Your task to perform on an android device: check storage Image 0: 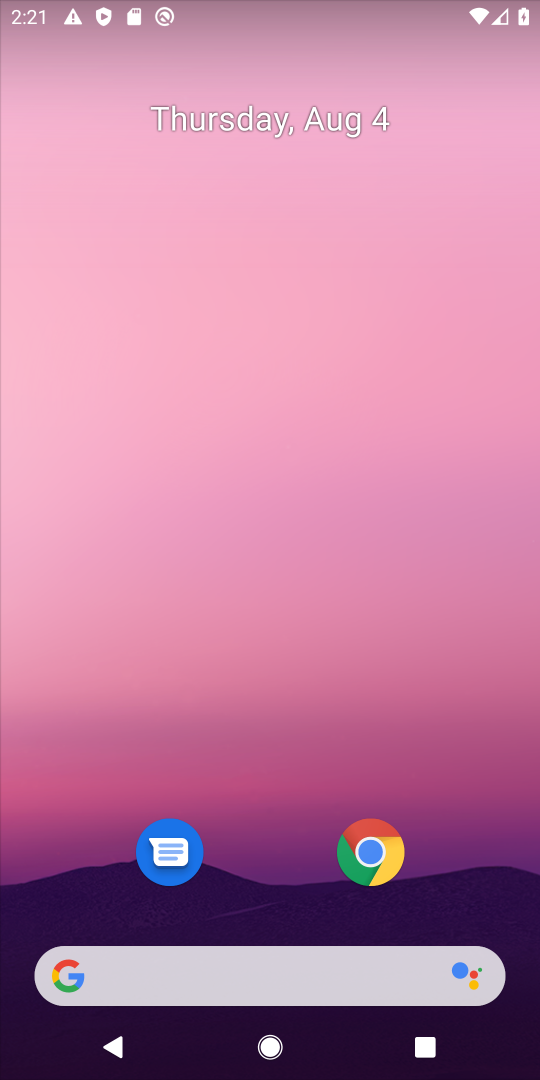
Step 0: drag from (285, 910) to (289, 142)
Your task to perform on an android device: check storage Image 1: 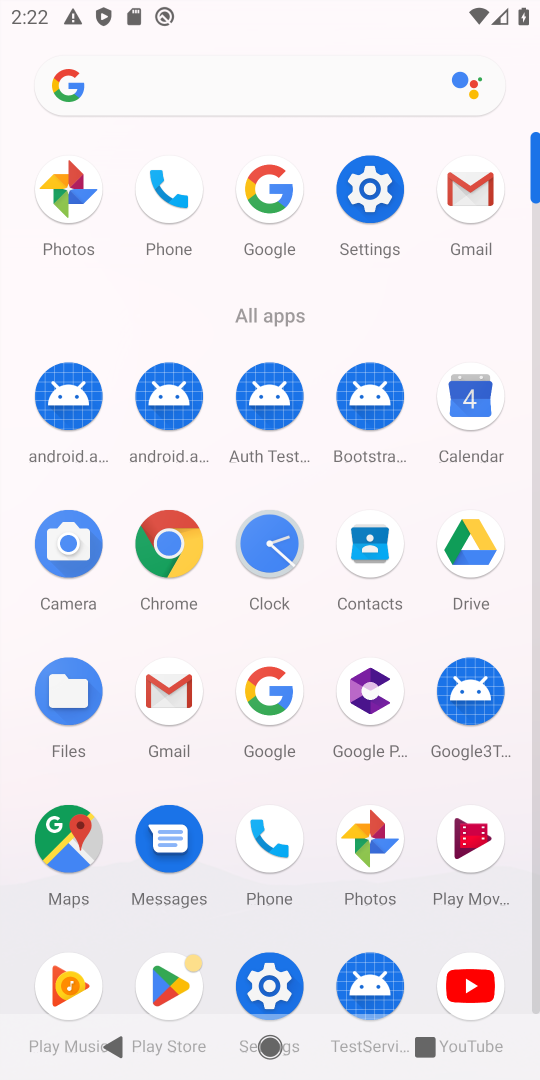
Step 1: click (374, 209)
Your task to perform on an android device: check storage Image 2: 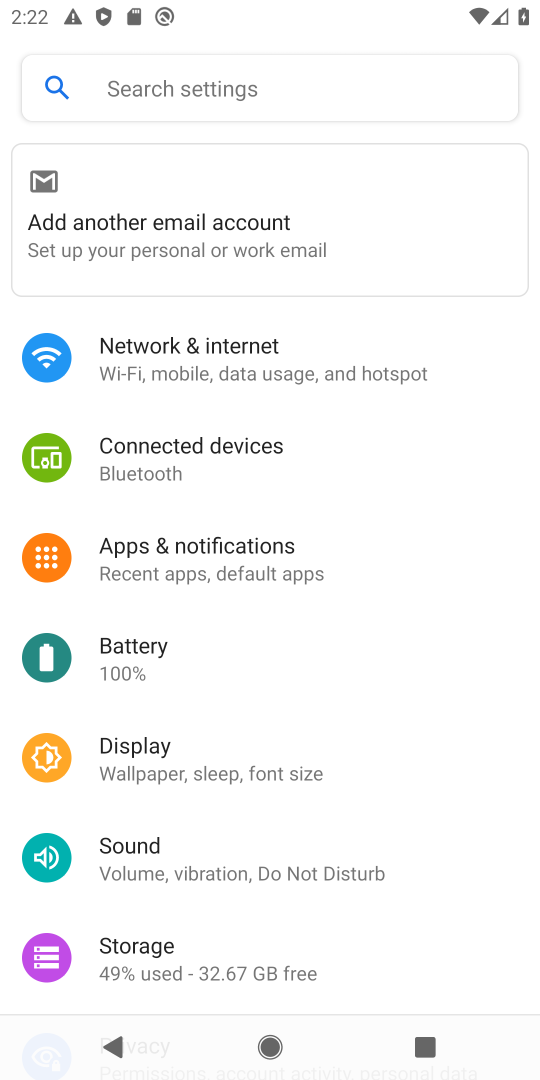
Step 2: click (154, 959)
Your task to perform on an android device: check storage Image 3: 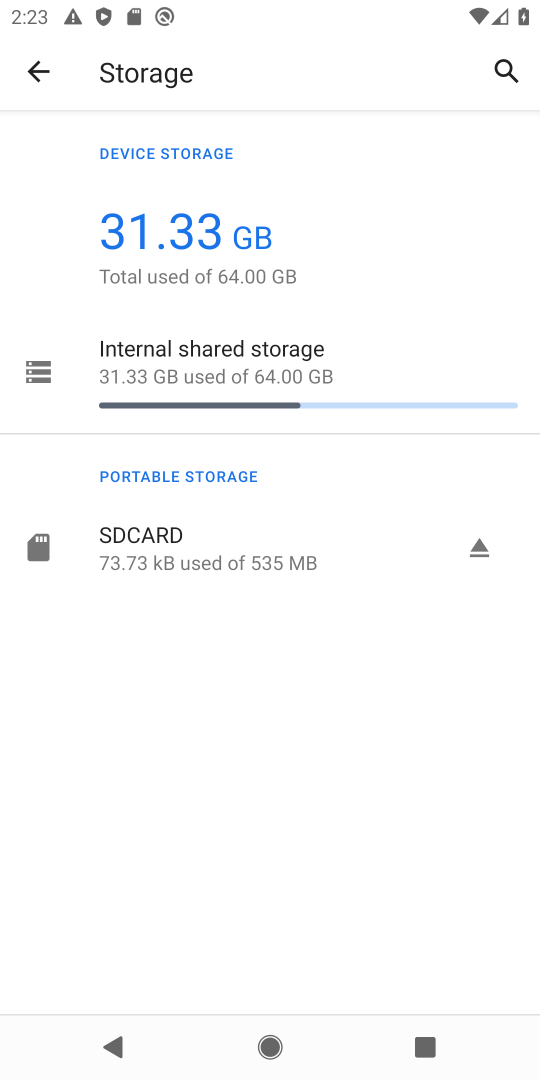
Step 3: task complete